Your task to perform on an android device: Open Maps and search for coffee Image 0: 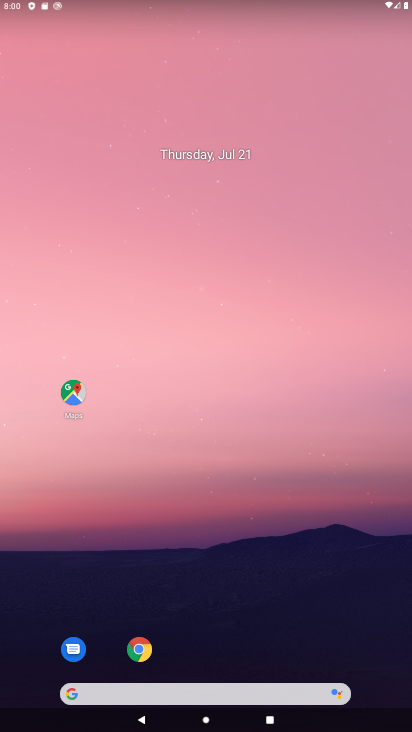
Step 0: click (182, 387)
Your task to perform on an android device: Open Maps and search for coffee Image 1: 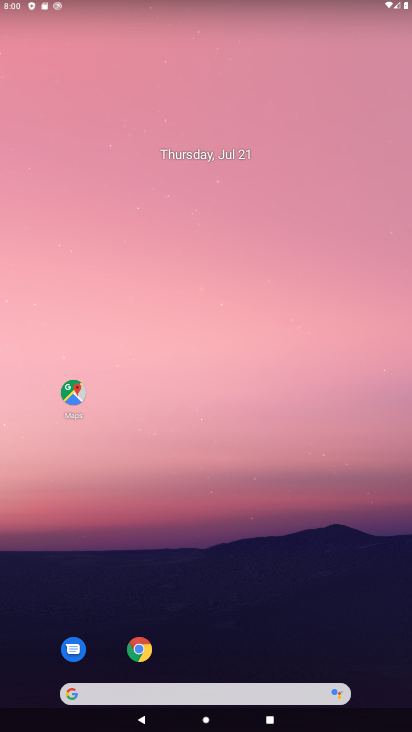
Step 1: click (77, 398)
Your task to perform on an android device: Open Maps and search for coffee Image 2: 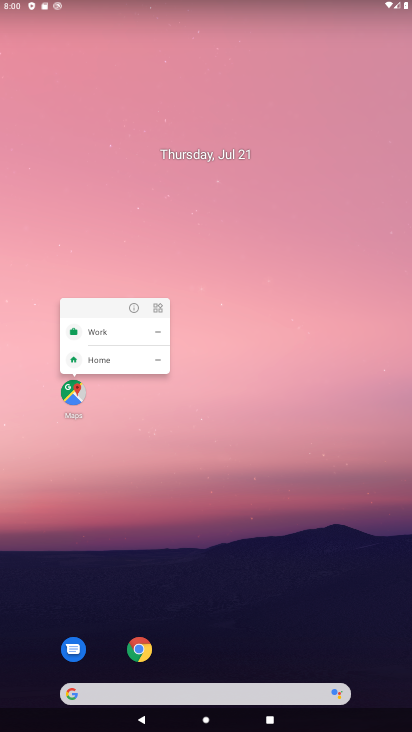
Step 2: click (77, 399)
Your task to perform on an android device: Open Maps and search for coffee Image 3: 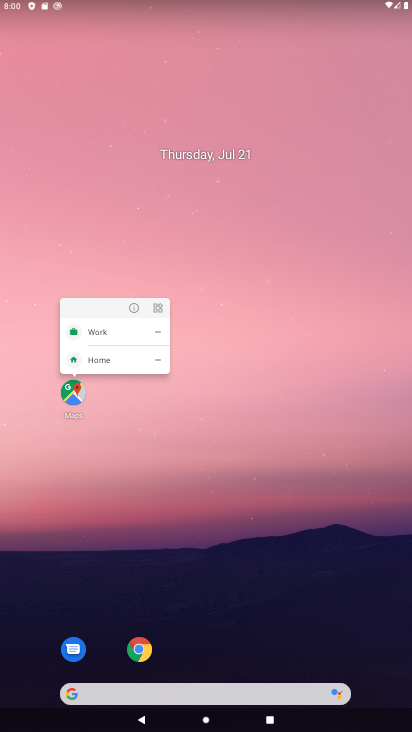
Step 3: click (75, 401)
Your task to perform on an android device: Open Maps and search for coffee Image 4: 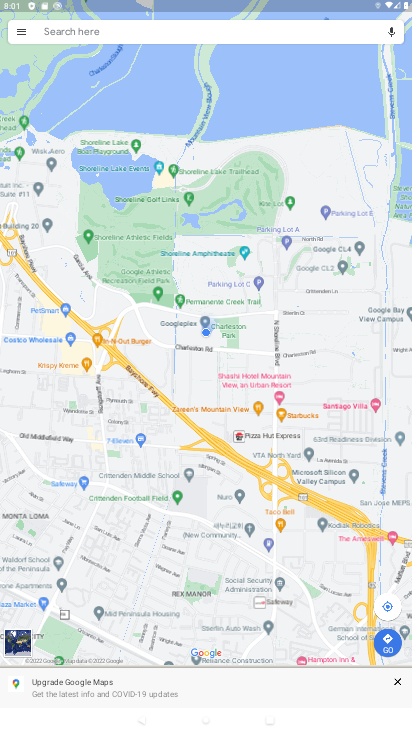
Step 4: click (153, 30)
Your task to perform on an android device: Open Maps and search for coffee Image 5: 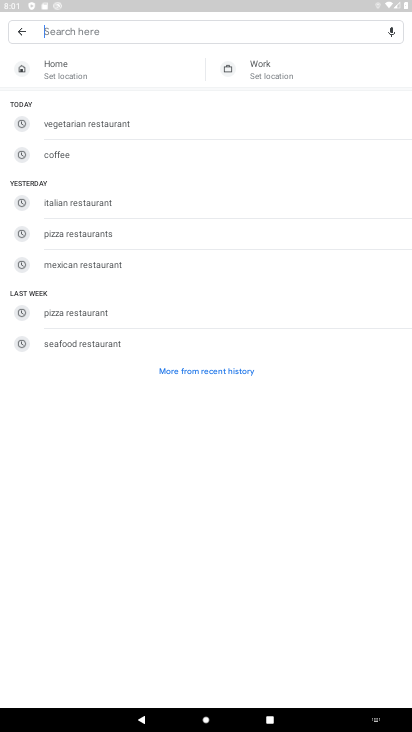
Step 5: type "coffee"
Your task to perform on an android device: Open Maps and search for coffee Image 6: 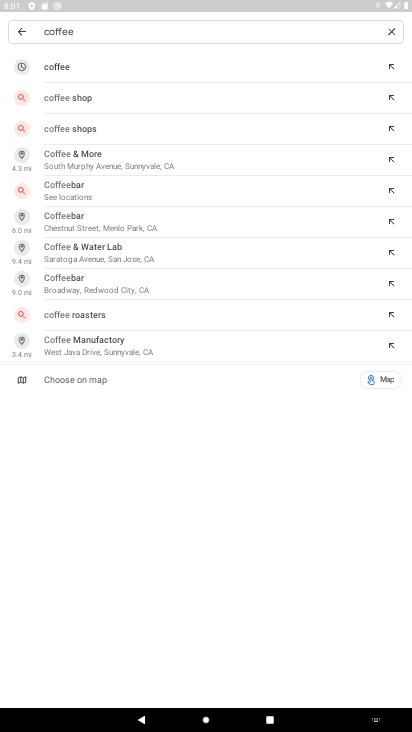
Step 6: click (89, 62)
Your task to perform on an android device: Open Maps and search for coffee Image 7: 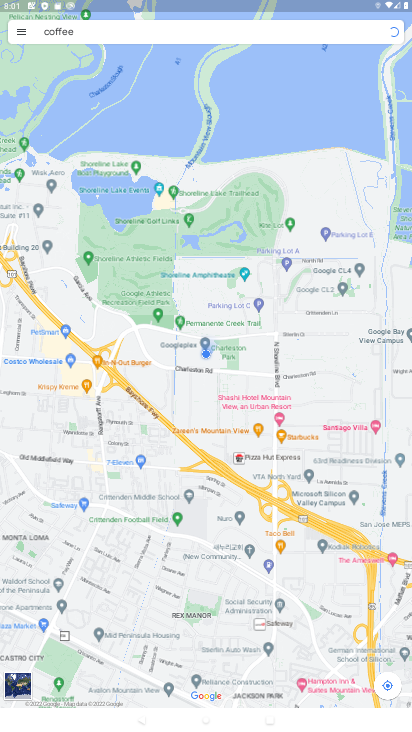
Step 7: task complete